Your task to perform on an android device: change the clock display to digital Image 0: 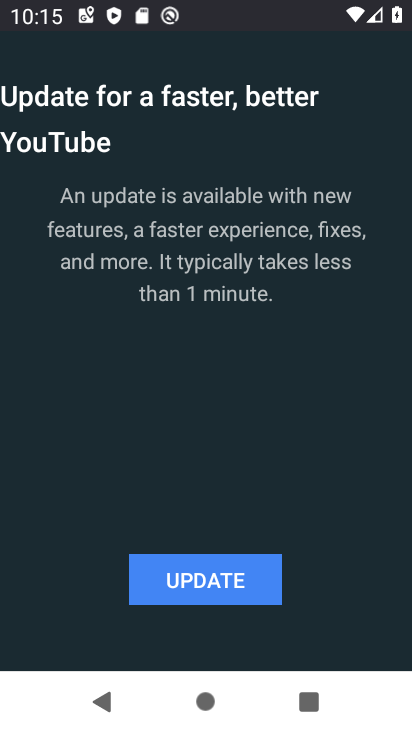
Step 0: press home button
Your task to perform on an android device: change the clock display to digital Image 1: 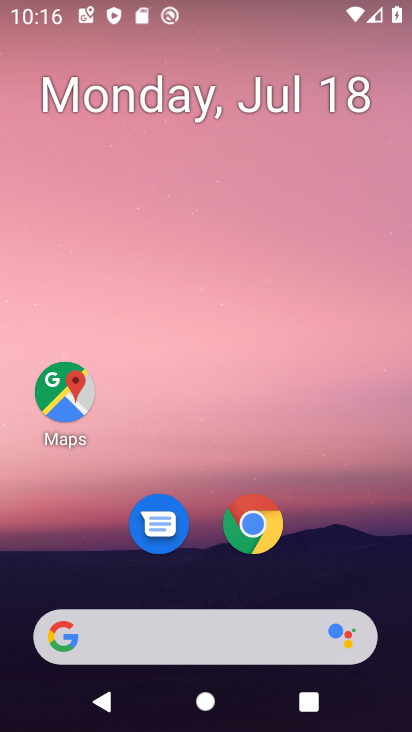
Step 1: drag from (333, 478) to (312, 17)
Your task to perform on an android device: change the clock display to digital Image 2: 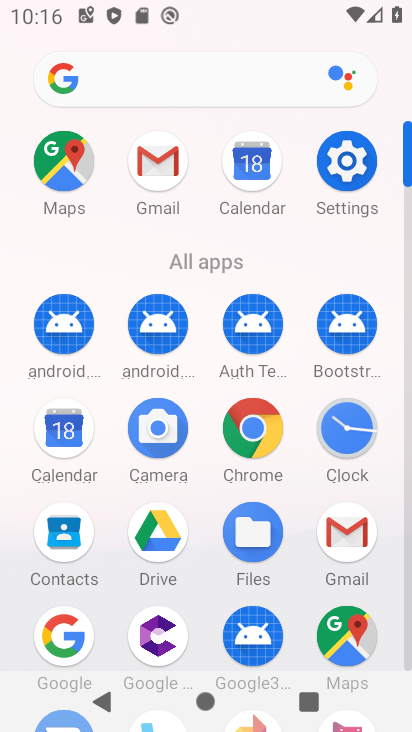
Step 2: click (341, 424)
Your task to perform on an android device: change the clock display to digital Image 3: 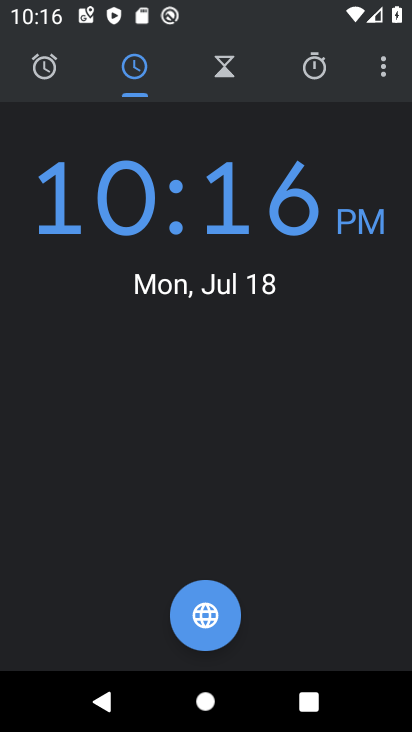
Step 3: click (139, 63)
Your task to perform on an android device: change the clock display to digital Image 4: 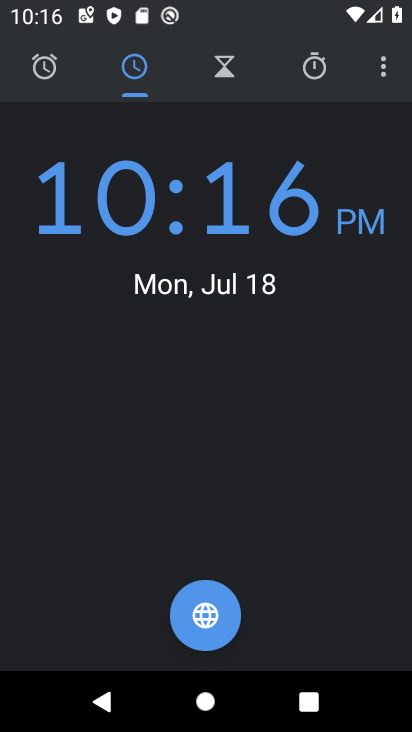
Step 4: task complete